Your task to perform on an android device: Open settings on Google Maps Image 0: 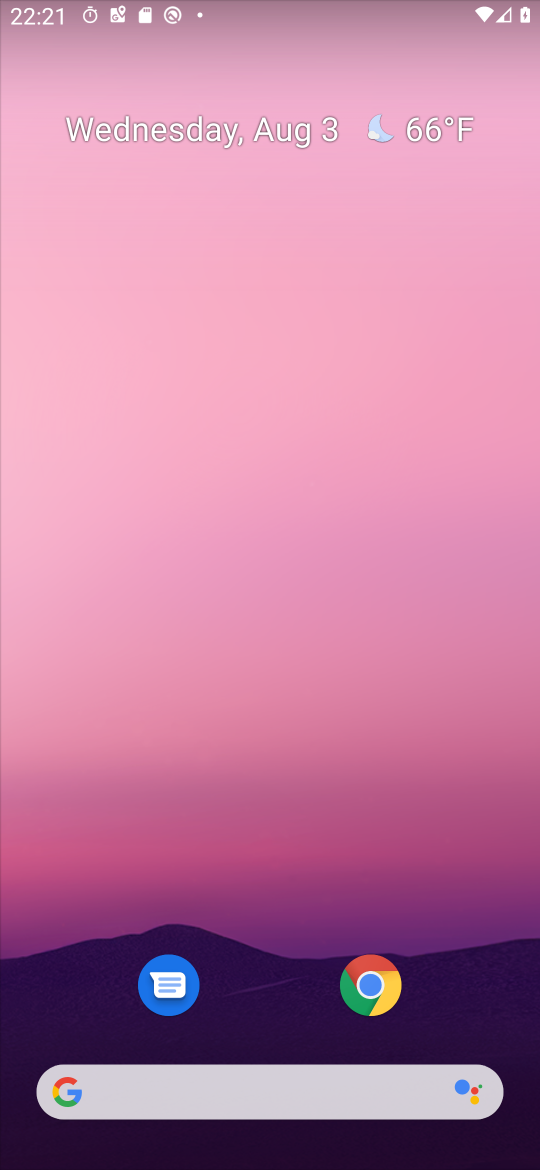
Step 0: drag from (273, 991) to (287, 324)
Your task to perform on an android device: Open settings on Google Maps Image 1: 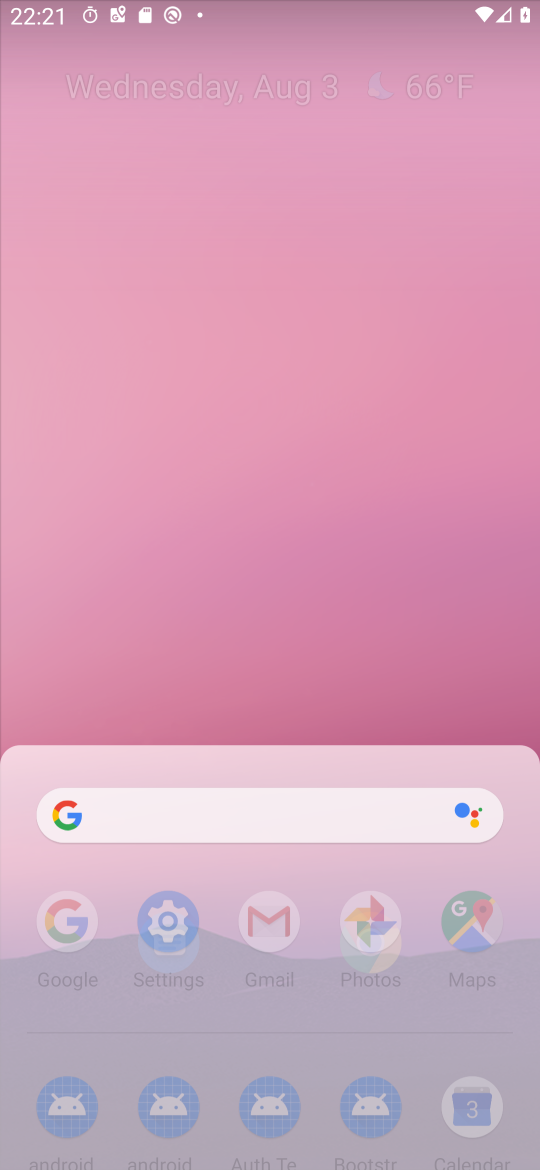
Step 1: drag from (287, 314) to (262, 241)
Your task to perform on an android device: Open settings on Google Maps Image 2: 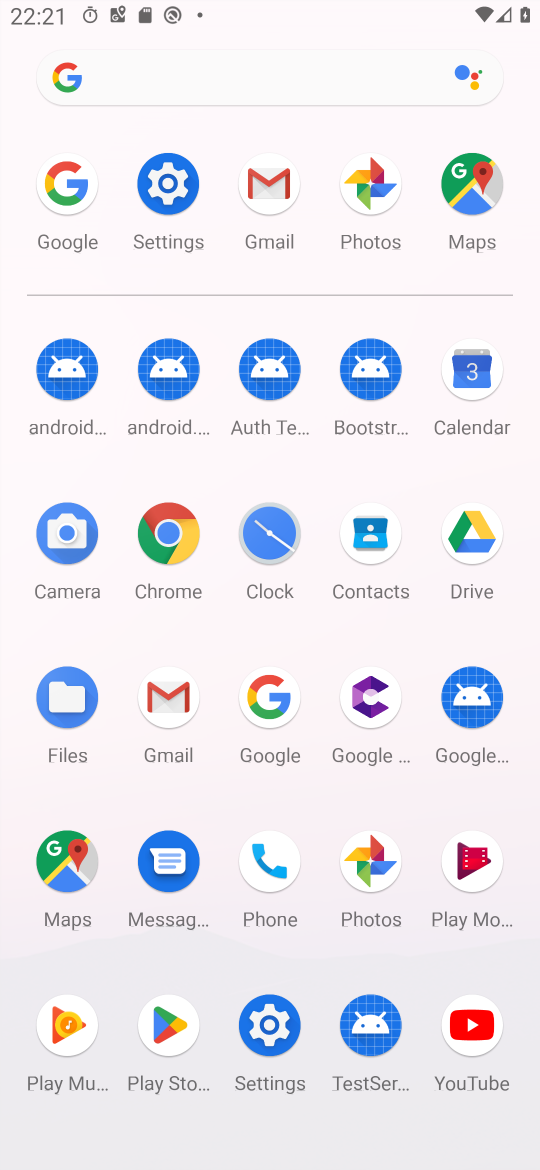
Step 2: click (463, 176)
Your task to perform on an android device: Open settings on Google Maps Image 3: 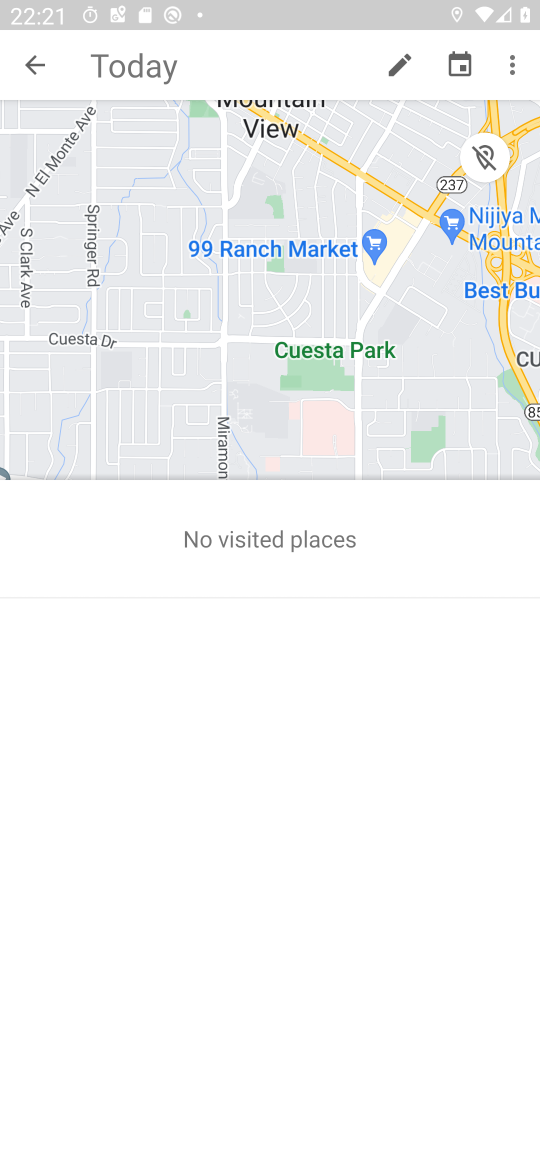
Step 3: click (48, 59)
Your task to perform on an android device: Open settings on Google Maps Image 4: 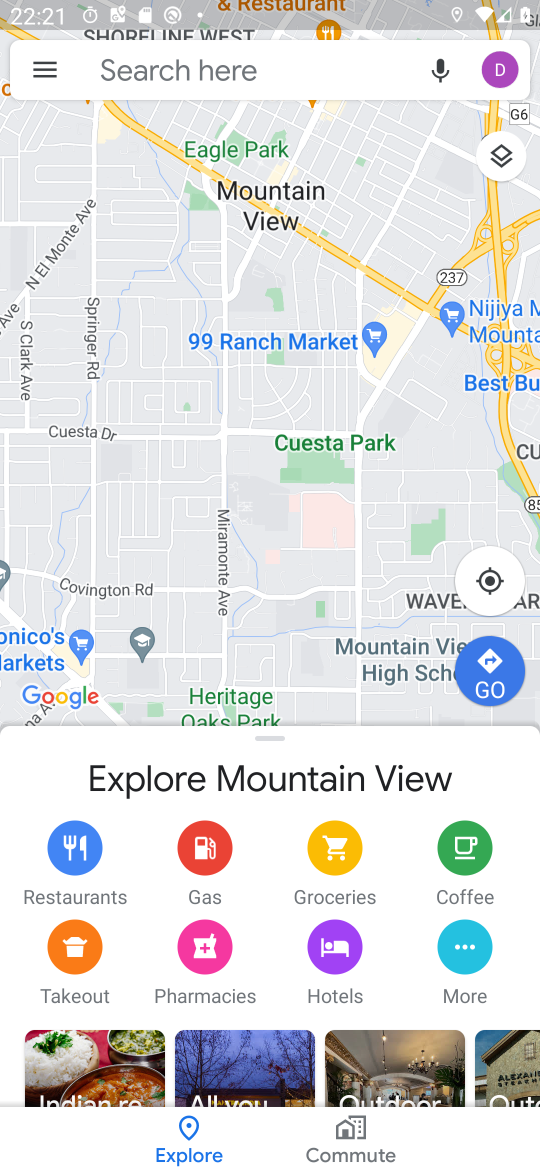
Step 4: click (50, 80)
Your task to perform on an android device: Open settings on Google Maps Image 5: 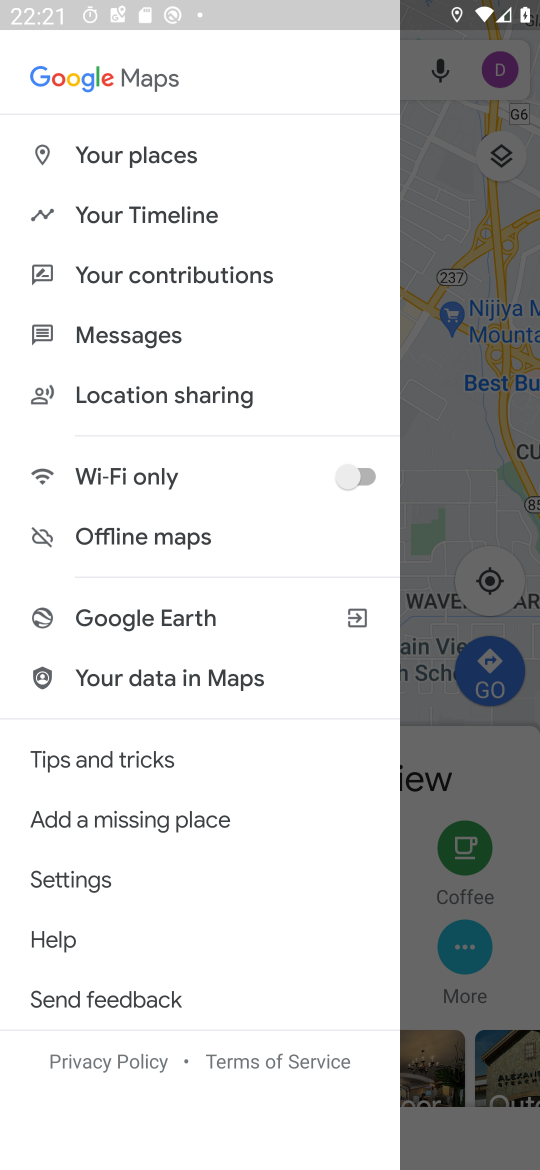
Step 5: click (59, 863)
Your task to perform on an android device: Open settings on Google Maps Image 6: 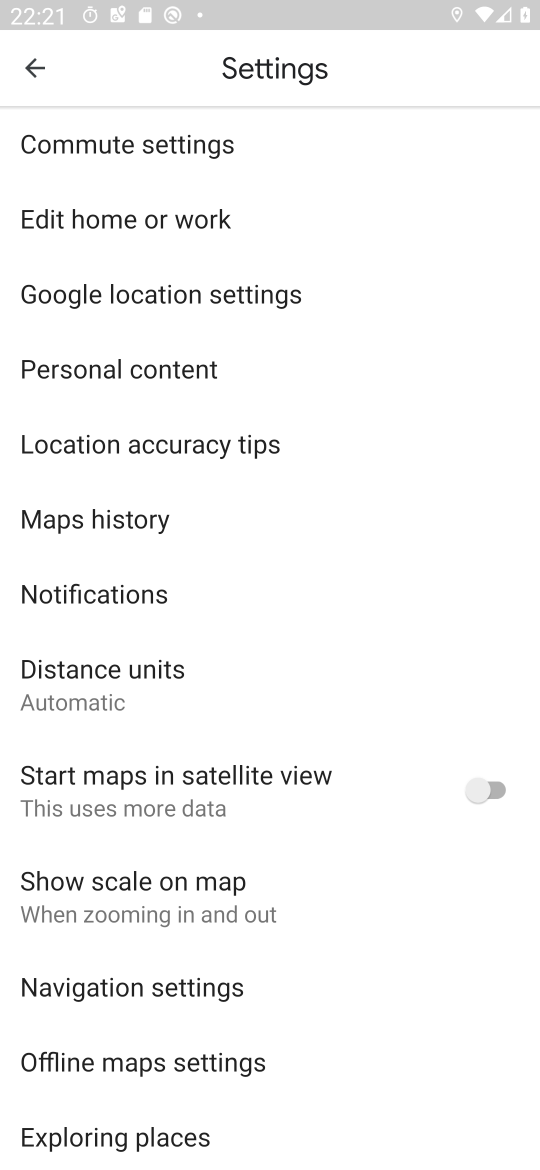
Step 6: task complete